Your task to perform on an android device: Set the phone to "Do not disturb". Image 0: 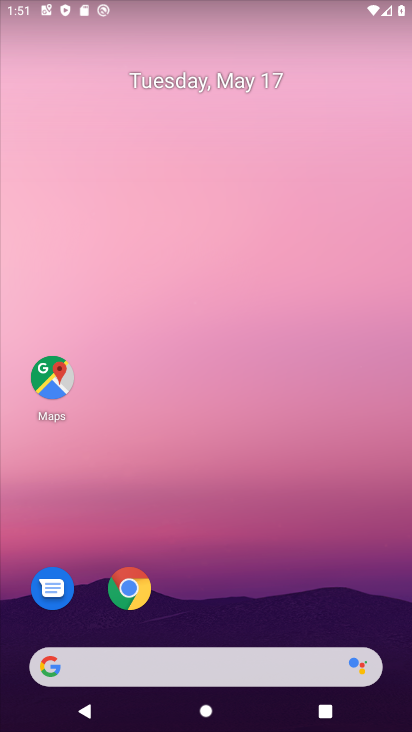
Step 0: drag from (177, 511) to (91, 89)
Your task to perform on an android device: Set the phone to "Do not disturb". Image 1: 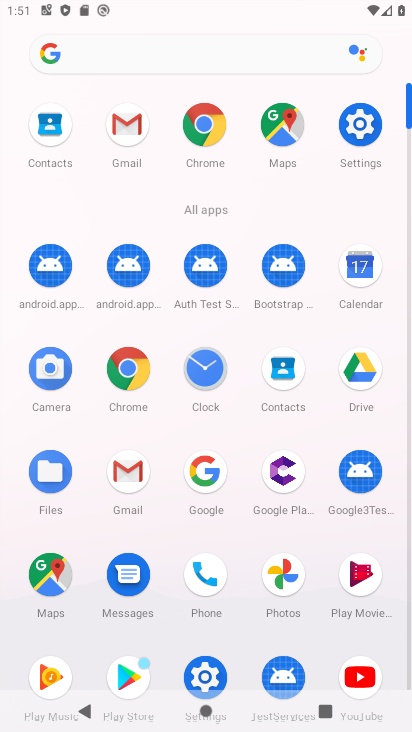
Step 1: click (372, 140)
Your task to perform on an android device: Set the phone to "Do not disturb". Image 2: 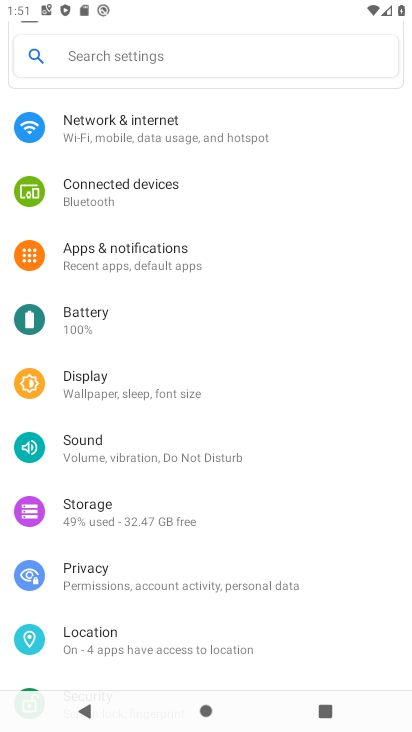
Step 2: click (210, 448)
Your task to perform on an android device: Set the phone to "Do not disturb". Image 3: 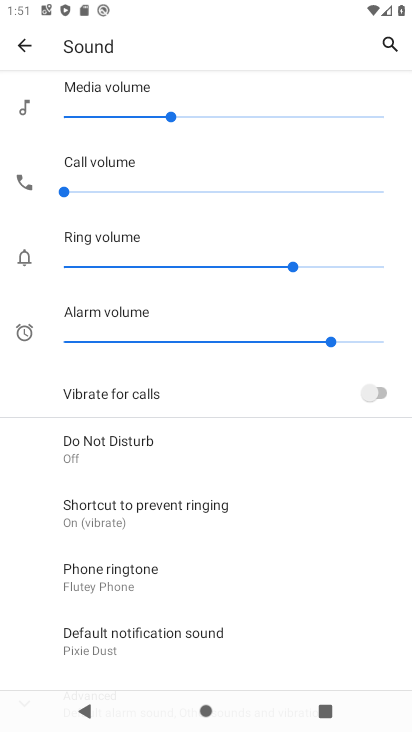
Step 3: click (130, 439)
Your task to perform on an android device: Set the phone to "Do not disturb". Image 4: 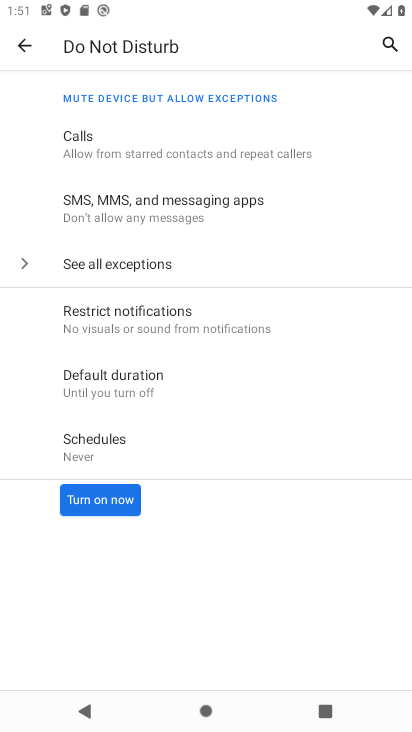
Step 4: click (110, 495)
Your task to perform on an android device: Set the phone to "Do not disturb". Image 5: 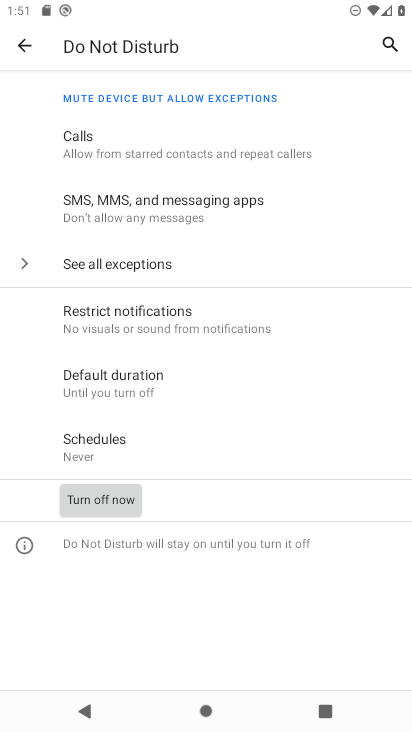
Step 5: task complete